Your task to perform on an android device: Go to privacy settings Image 0: 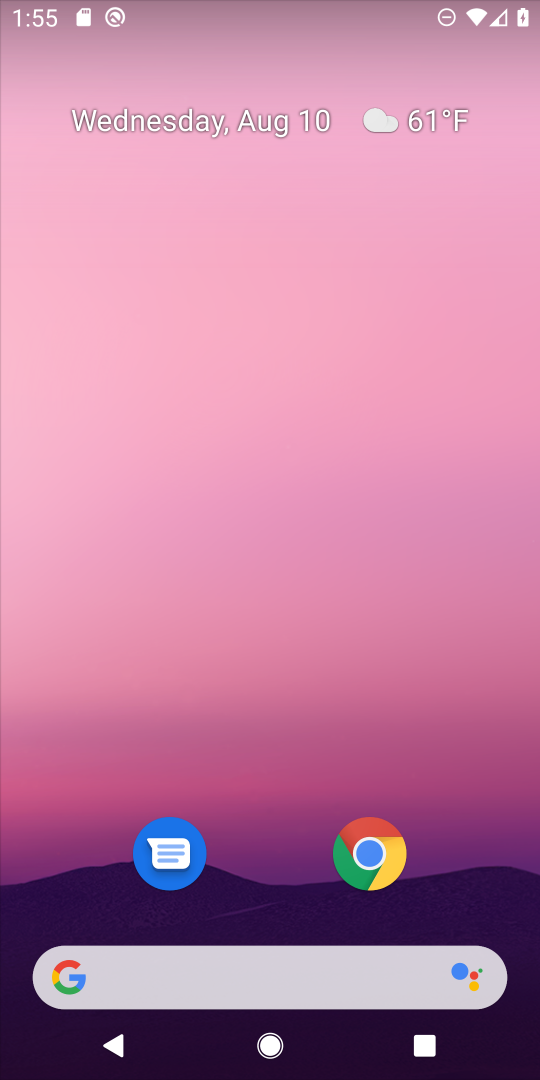
Step 0: drag from (283, 711) to (317, 219)
Your task to perform on an android device: Go to privacy settings Image 1: 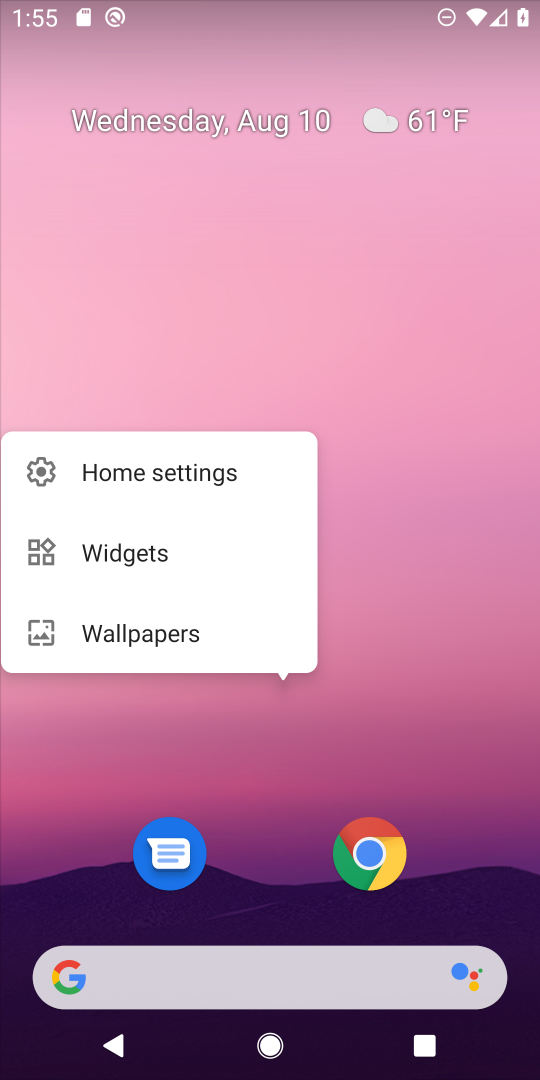
Step 1: click (358, 644)
Your task to perform on an android device: Go to privacy settings Image 2: 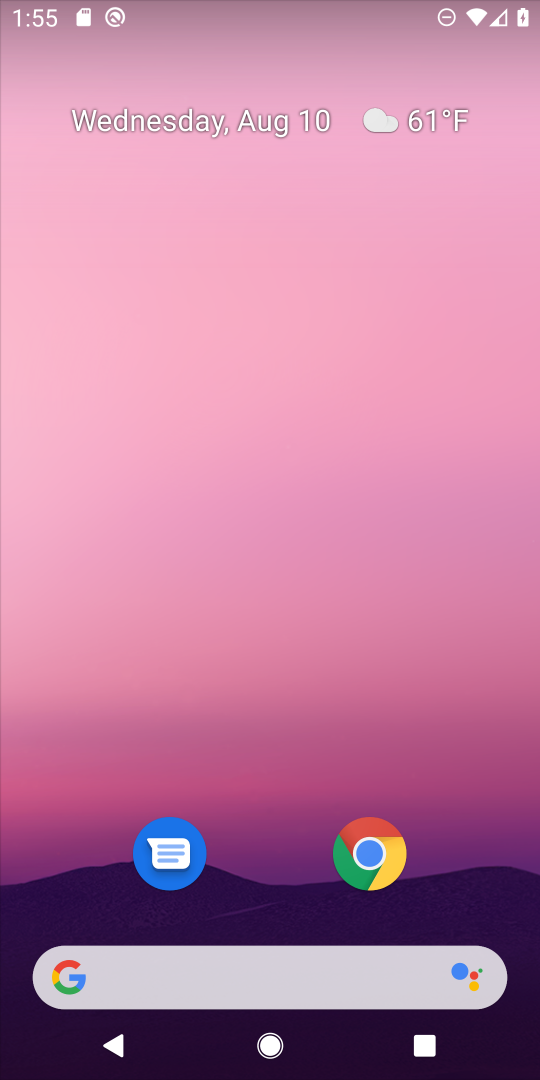
Step 2: drag from (263, 791) to (313, 273)
Your task to perform on an android device: Go to privacy settings Image 3: 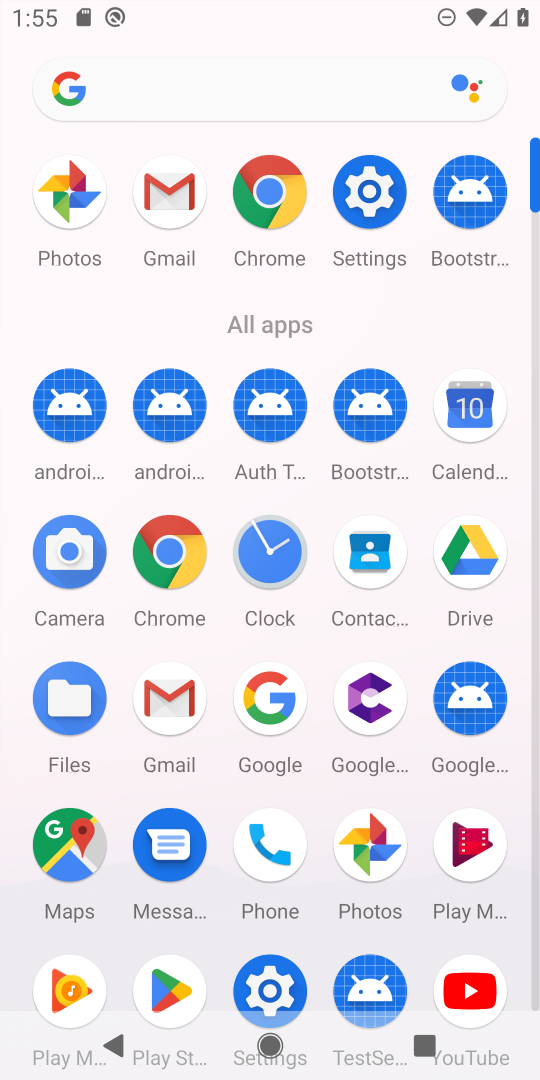
Step 3: click (378, 196)
Your task to perform on an android device: Go to privacy settings Image 4: 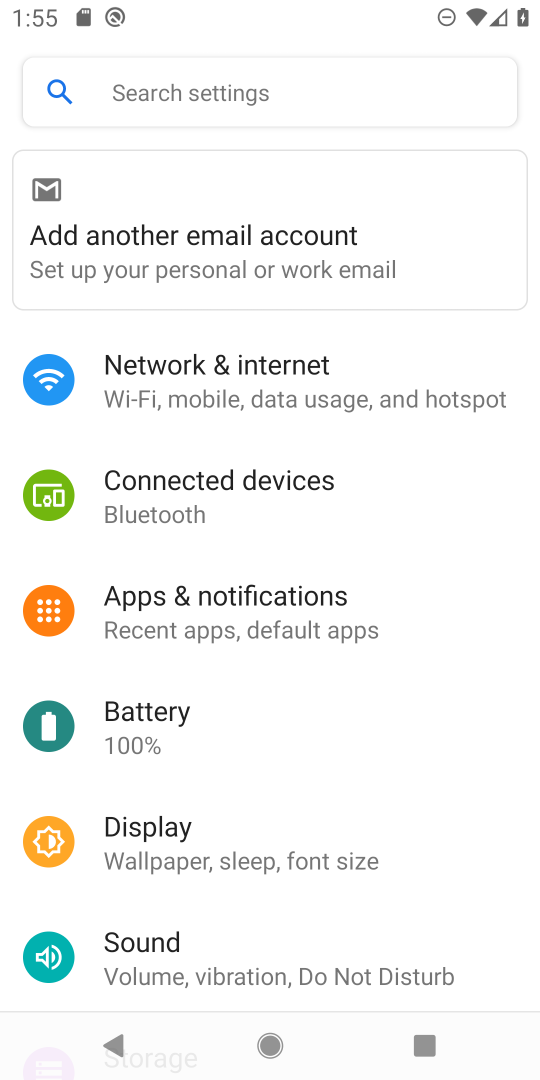
Step 4: drag from (315, 582) to (306, 161)
Your task to perform on an android device: Go to privacy settings Image 5: 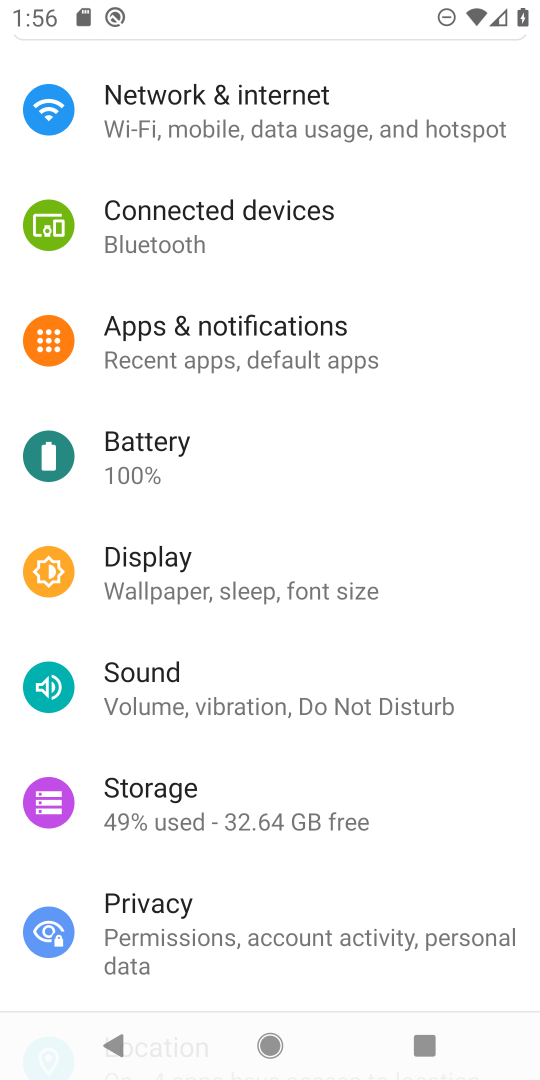
Step 5: click (171, 913)
Your task to perform on an android device: Go to privacy settings Image 6: 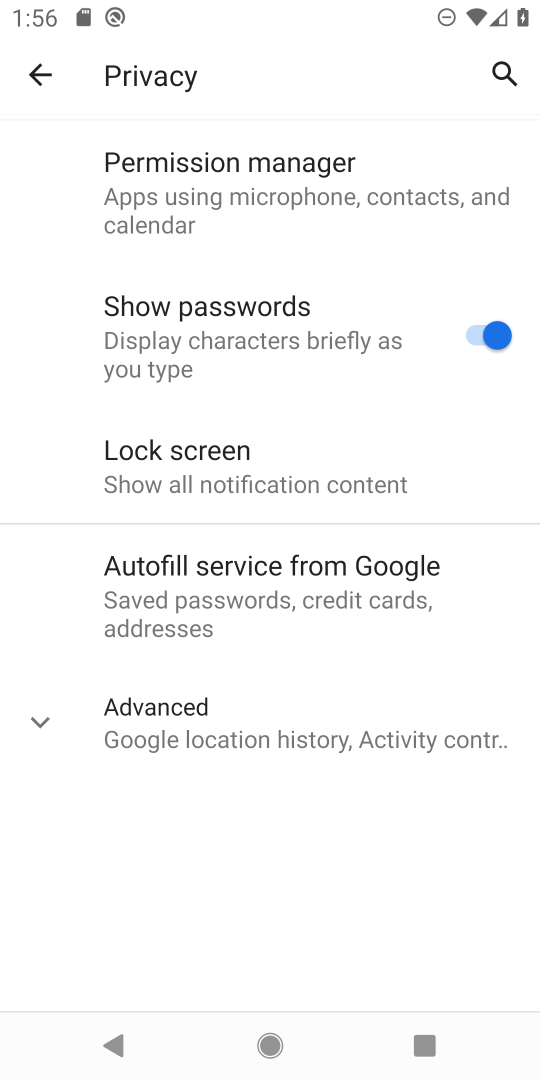
Step 6: task complete